Your task to perform on an android device: turn off notifications settings in the gmail app Image 0: 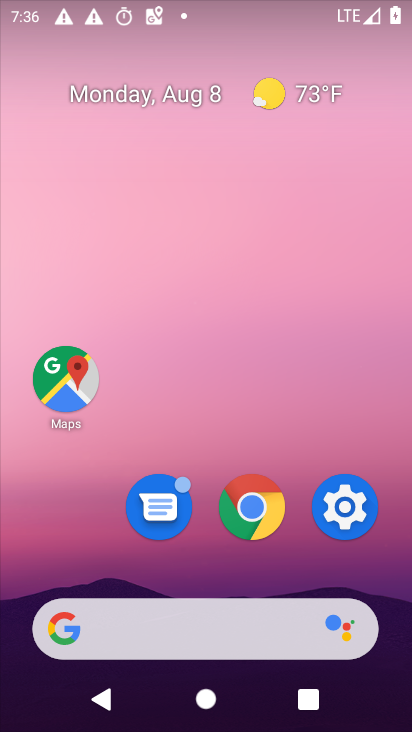
Step 0: drag from (276, 660) to (159, 189)
Your task to perform on an android device: turn off notifications settings in the gmail app Image 1: 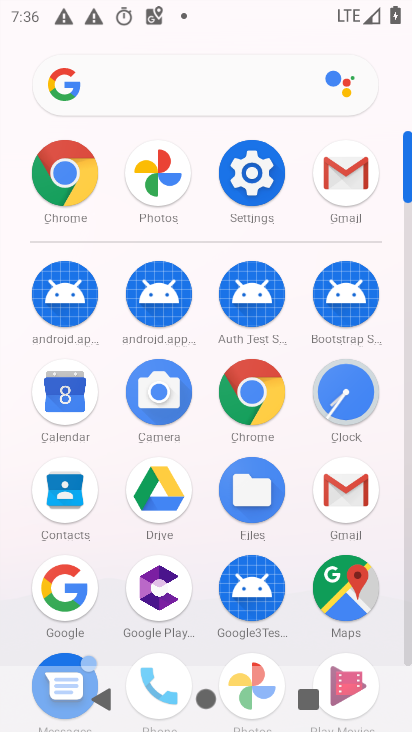
Step 1: drag from (348, 483) to (381, 571)
Your task to perform on an android device: turn off notifications settings in the gmail app Image 2: 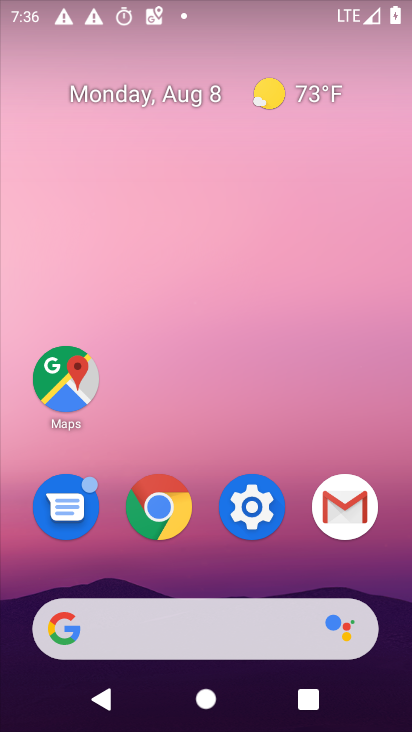
Step 2: click (346, 523)
Your task to perform on an android device: turn off notifications settings in the gmail app Image 3: 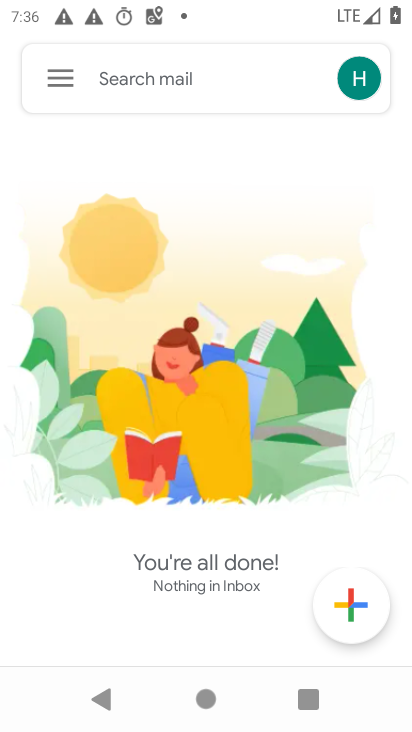
Step 3: click (52, 77)
Your task to perform on an android device: turn off notifications settings in the gmail app Image 4: 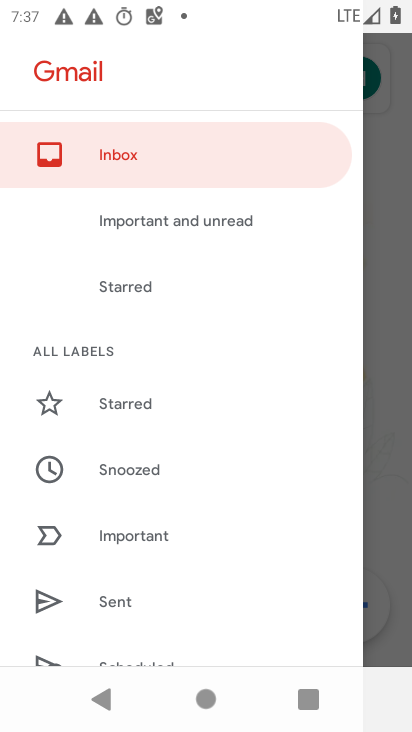
Step 4: drag from (133, 642) to (116, 401)
Your task to perform on an android device: turn off notifications settings in the gmail app Image 5: 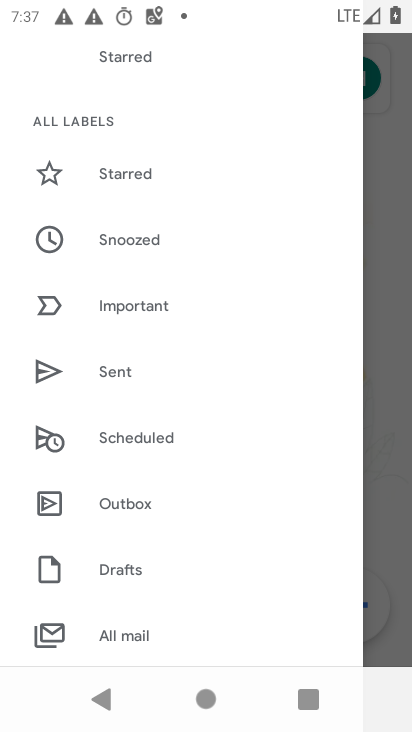
Step 5: drag from (154, 613) to (105, 412)
Your task to perform on an android device: turn off notifications settings in the gmail app Image 6: 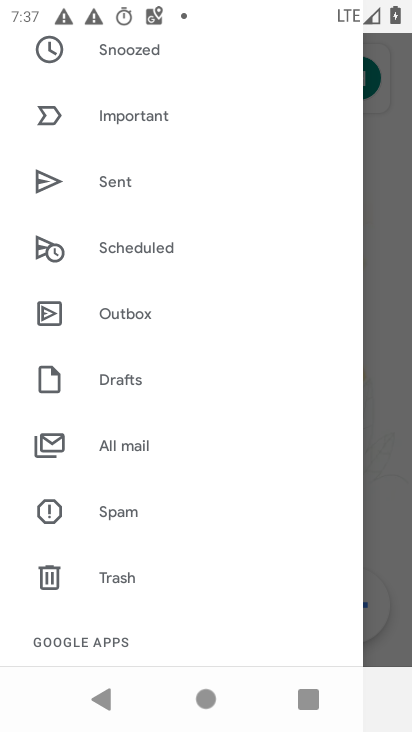
Step 6: drag from (129, 587) to (113, 407)
Your task to perform on an android device: turn off notifications settings in the gmail app Image 7: 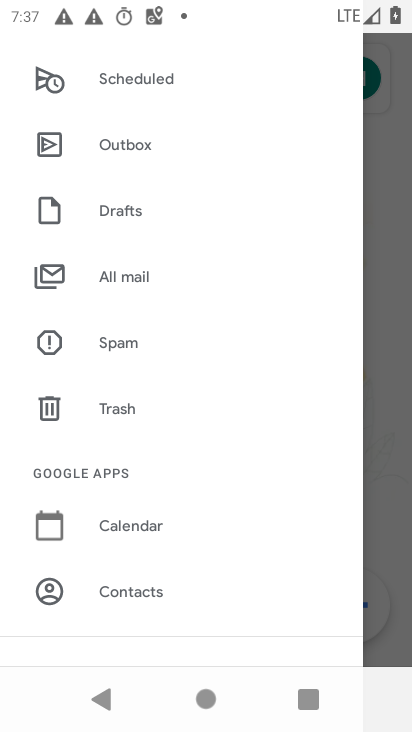
Step 7: drag from (129, 589) to (110, 407)
Your task to perform on an android device: turn off notifications settings in the gmail app Image 8: 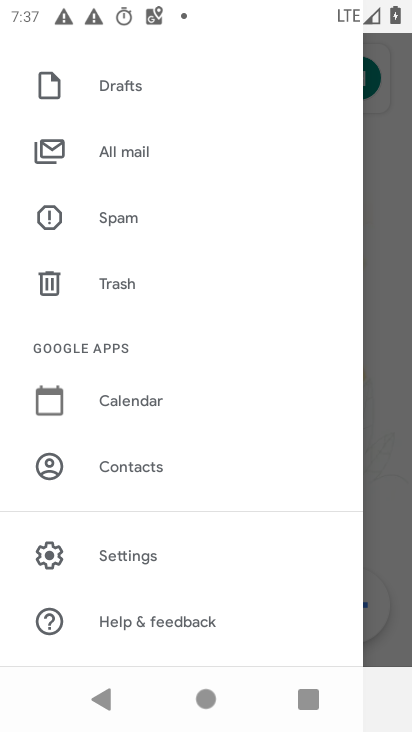
Step 8: click (144, 559)
Your task to perform on an android device: turn off notifications settings in the gmail app Image 9: 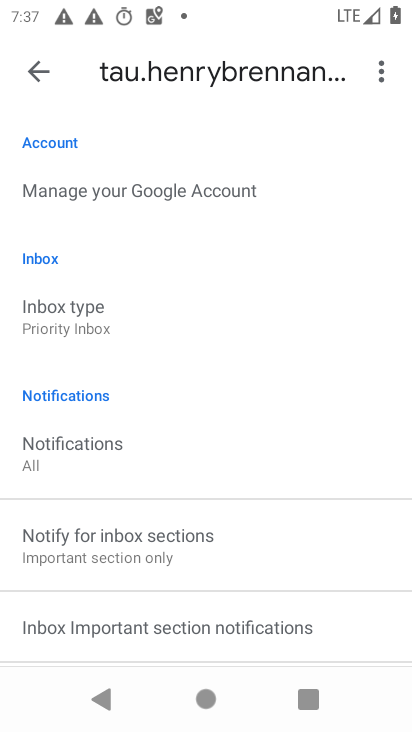
Step 9: drag from (168, 595) to (163, 463)
Your task to perform on an android device: turn off notifications settings in the gmail app Image 10: 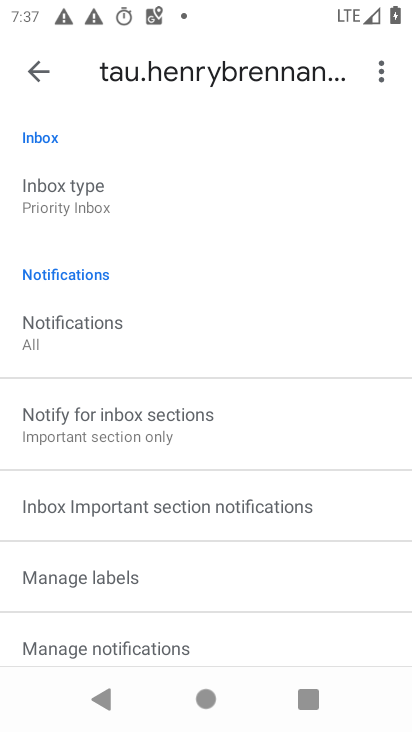
Step 10: click (121, 340)
Your task to perform on an android device: turn off notifications settings in the gmail app Image 11: 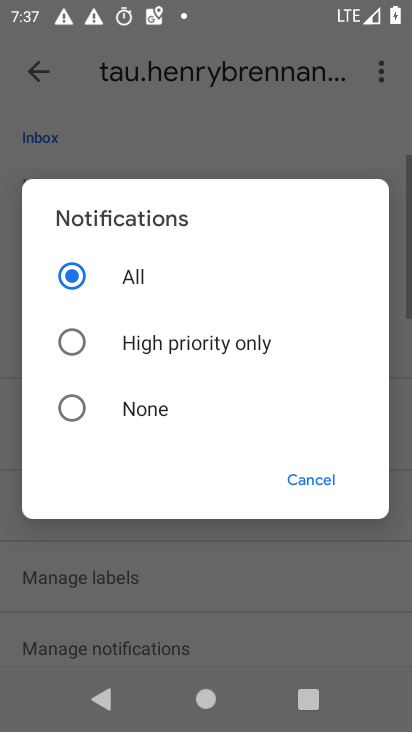
Step 11: click (113, 398)
Your task to perform on an android device: turn off notifications settings in the gmail app Image 12: 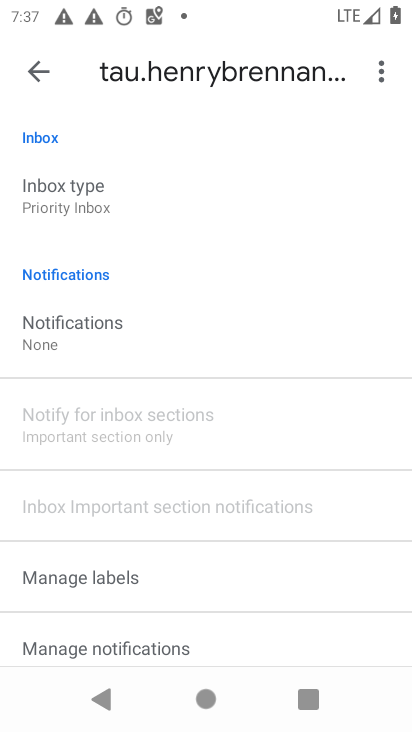
Step 12: task complete